Your task to perform on an android device: Open Google Chrome Image 0: 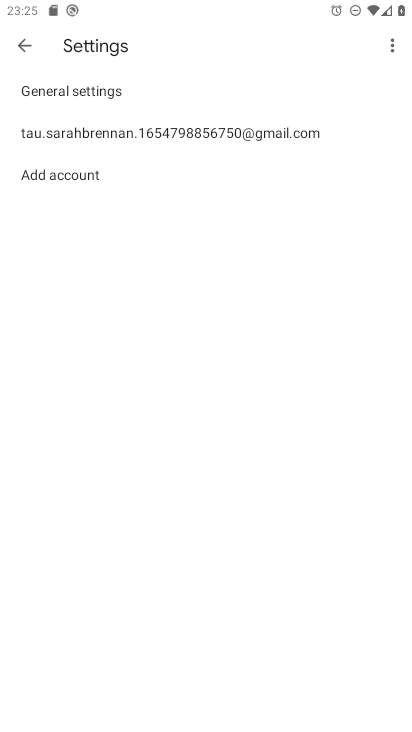
Step 0: press home button
Your task to perform on an android device: Open Google Chrome Image 1: 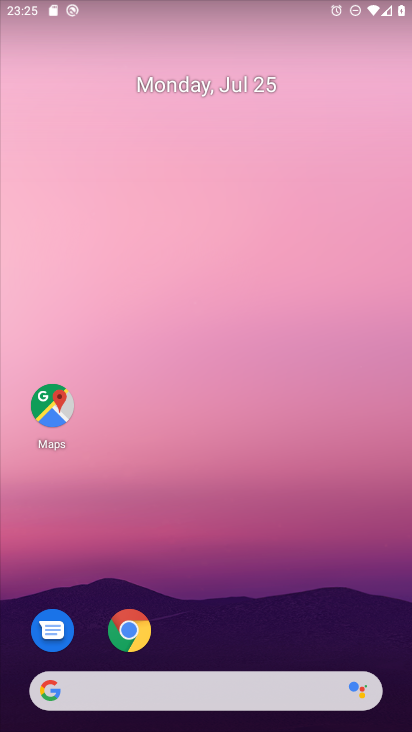
Step 1: click (127, 637)
Your task to perform on an android device: Open Google Chrome Image 2: 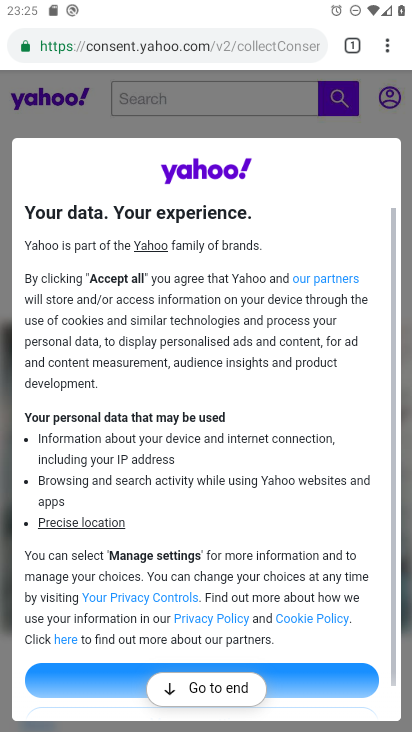
Step 2: task complete